Your task to perform on an android device: turn off smart reply in the gmail app Image 0: 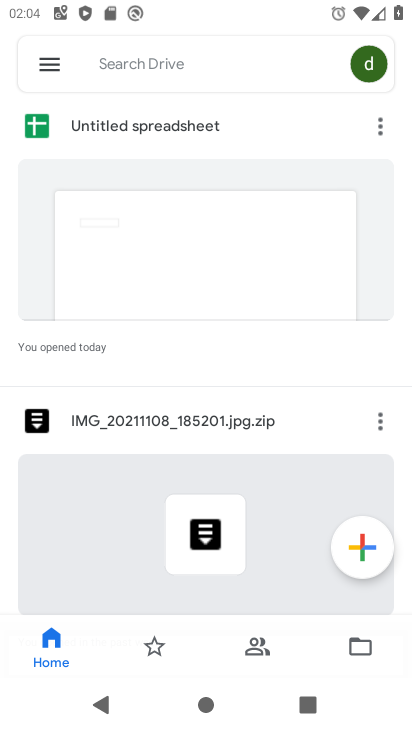
Step 0: press home button
Your task to perform on an android device: turn off smart reply in the gmail app Image 1: 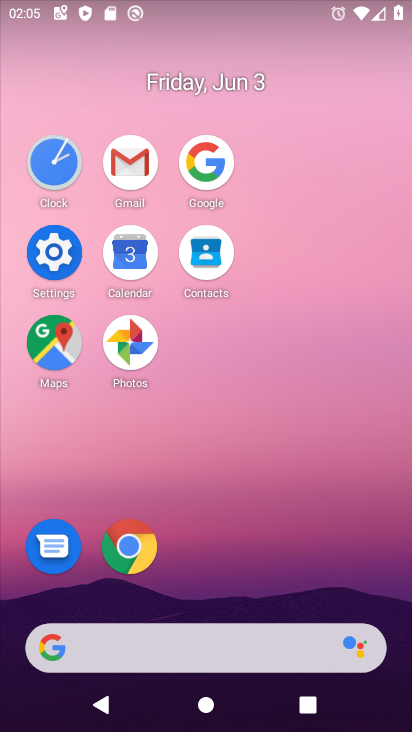
Step 1: click (124, 166)
Your task to perform on an android device: turn off smart reply in the gmail app Image 2: 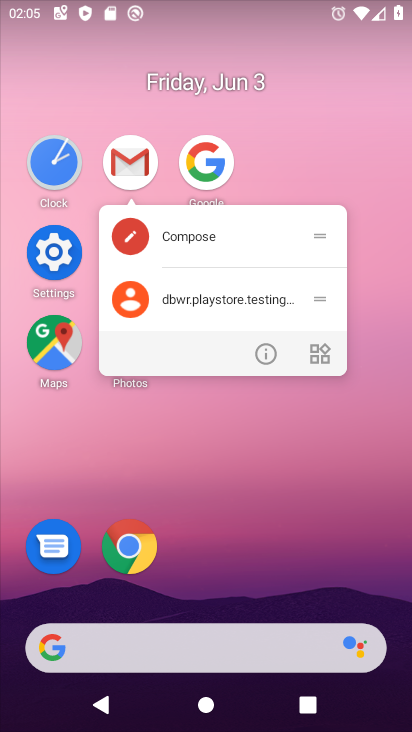
Step 2: click (124, 166)
Your task to perform on an android device: turn off smart reply in the gmail app Image 3: 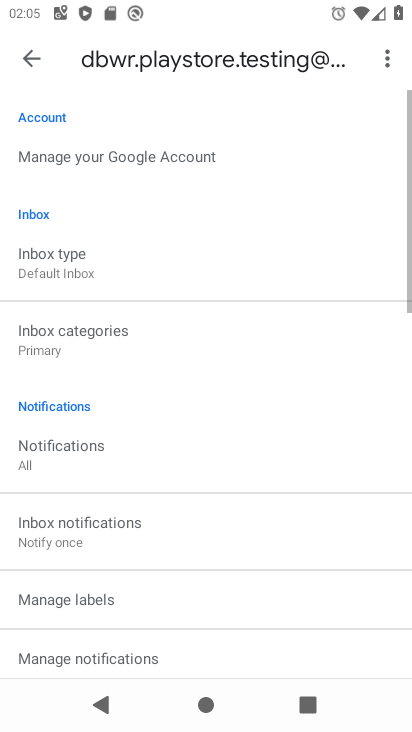
Step 3: task complete